Your task to perform on an android device: set the timer Image 0: 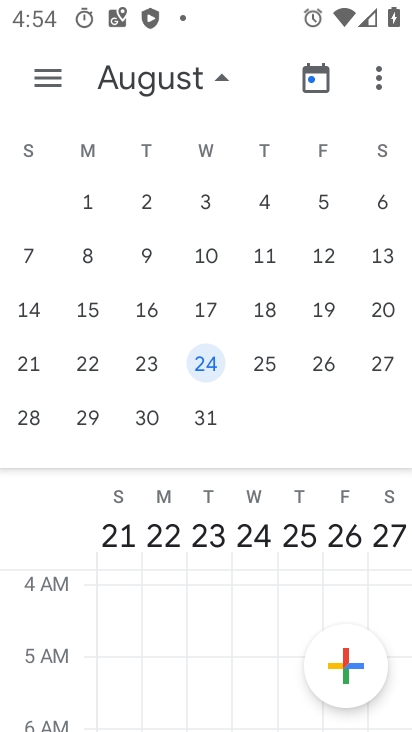
Step 0: press home button
Your task to perform on an android device: set the timer Image 1: 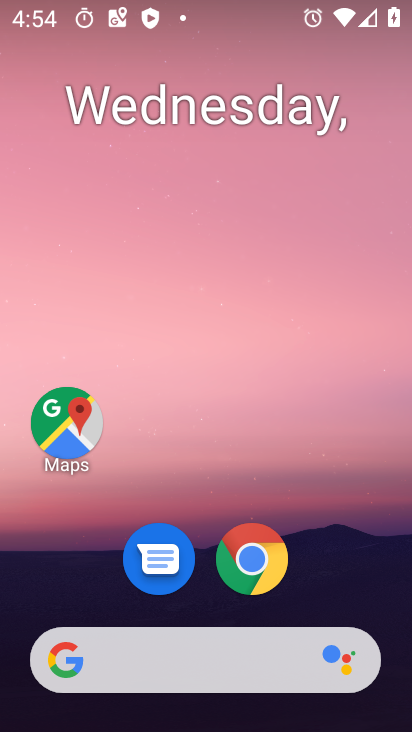
Step 1: drag from (379, 562) to (272, 95)
Your task to perform on an android device: set the timer Image 2: 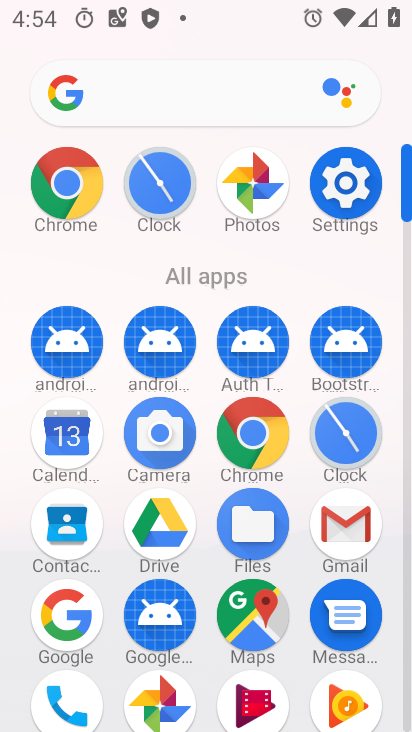
Step 2: click (167, 181)
Your task to perform on an android device: set the timer Image 3: 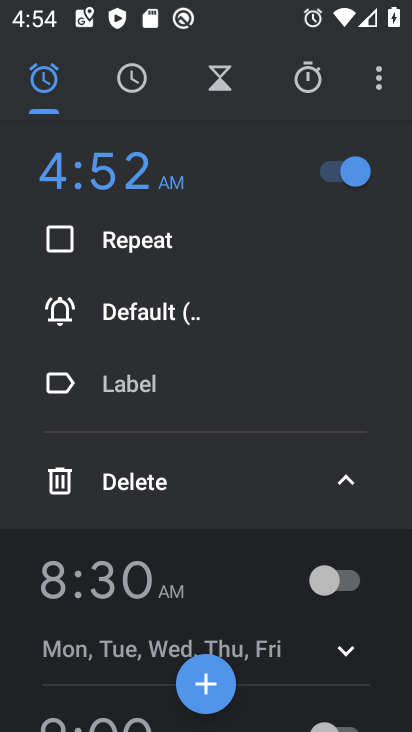
Step 3: click (218, 87)
Your task to perform on an android device: set the timer Image 4: 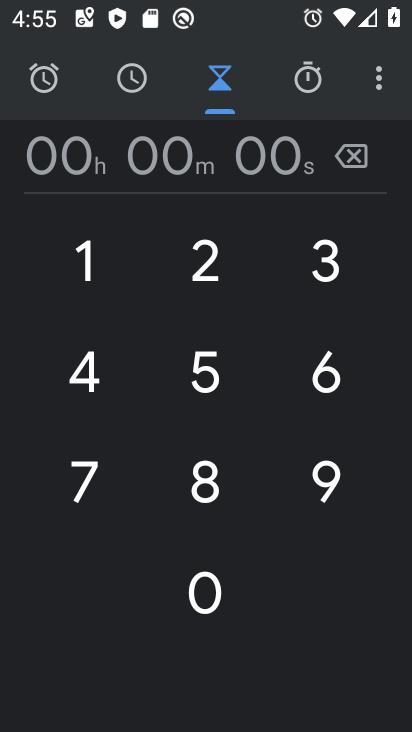
Step 4: type "800000"
Your task to perform on an android device: set the timer Image 5: 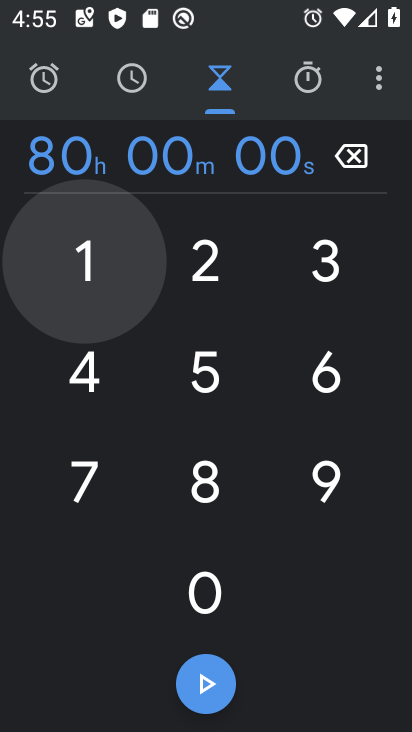
Step 5: click (215, 691)
Your task to perform on an android device: set the timer Image 6: 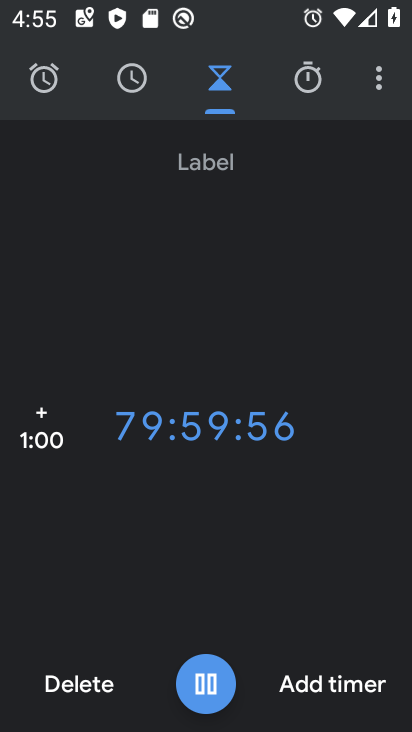
Step 6: task complete